Your task to perform on an android device: snooze an email in the gmail app Image 0: 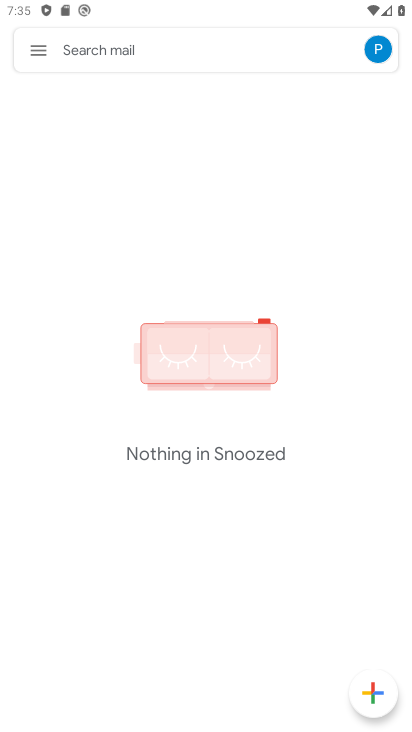
Step 0: click (392, 361)
Your task to perform on an android device: snooze an email in the gmail app Image 1: 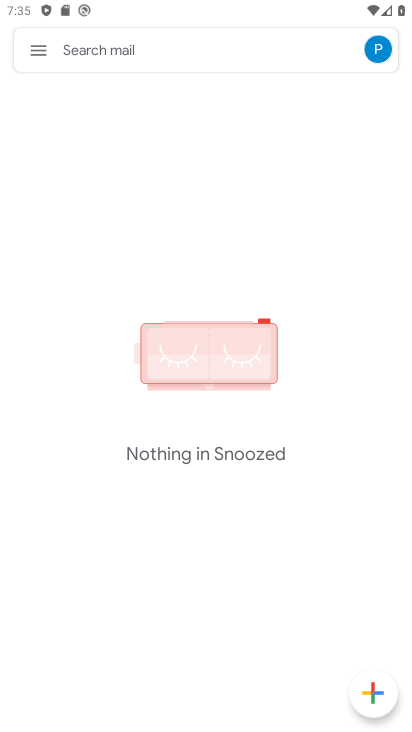
Step 1: drag from (210, 568) to (256, 362)
Your task to perform on an android device: snooze an email in the gmail app Image 2: 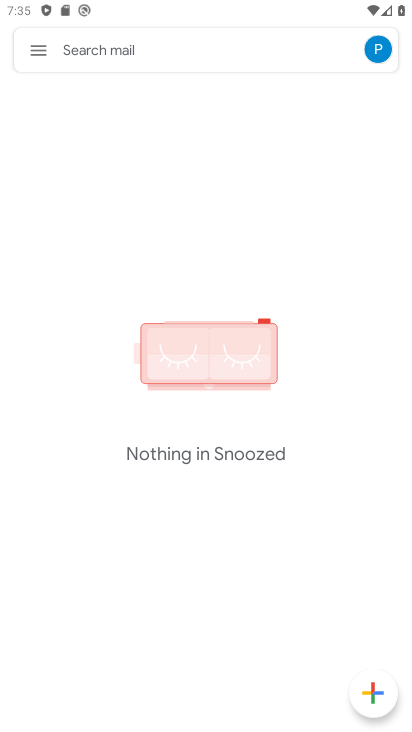
Step 2: click (231, 452)
Your task to perform on an android device: snooze an email in the gmail app Image 3: 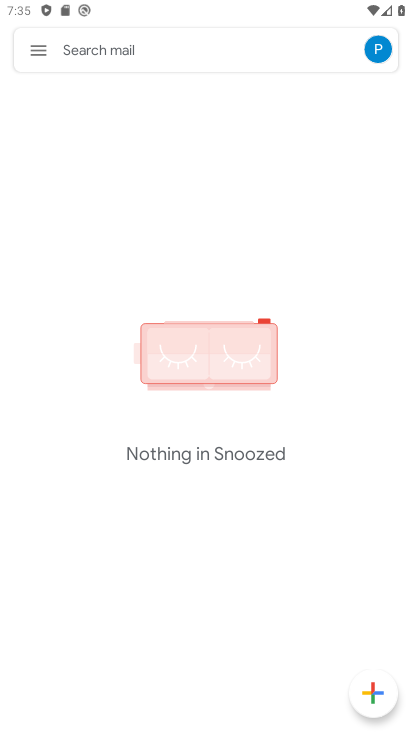
Step 3: click (22, 47)
Your task to perform on an android device: snooze an email in the gmail app Image 4: 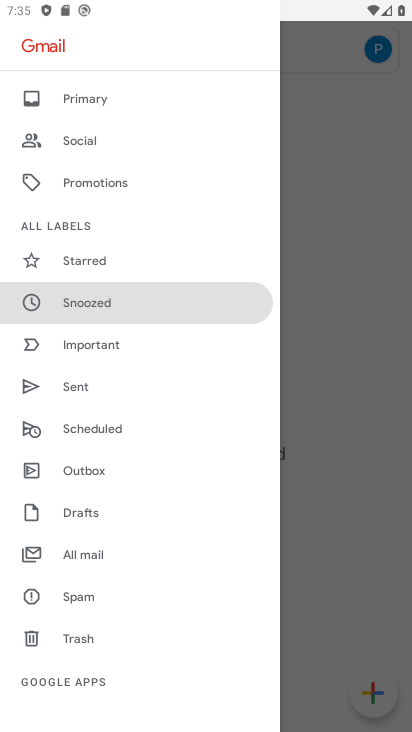
Step 4: task complete